Your task to perform on an android device: Turn off the flashlight Image 0: 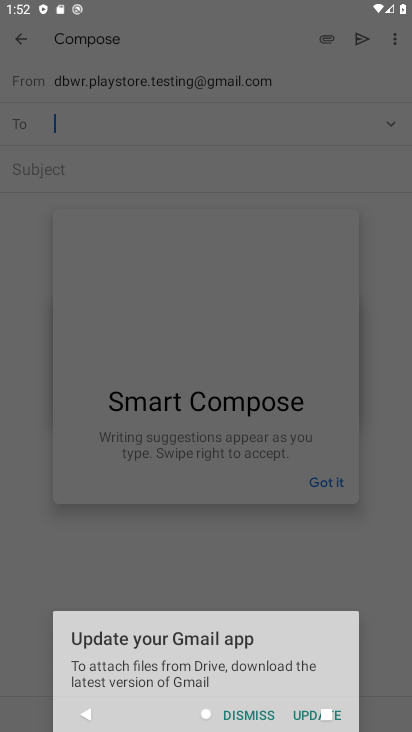
Step 0: press home button
Your task to perform on an android device: Turn off the flashlight Image 1: 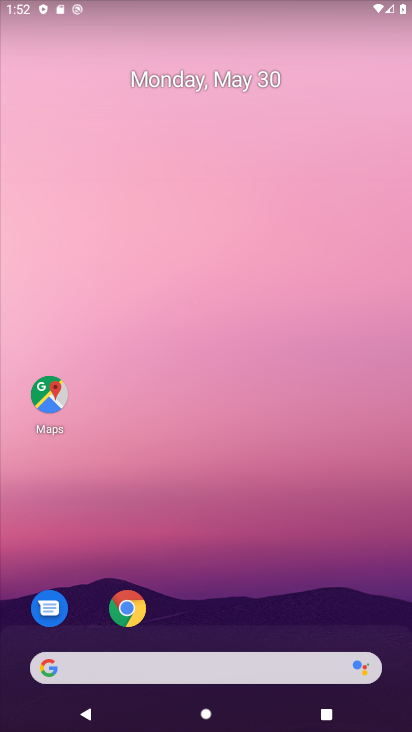
Step 1: task complete